Your task to perform on an android device: toggle sleep mode Image 0: 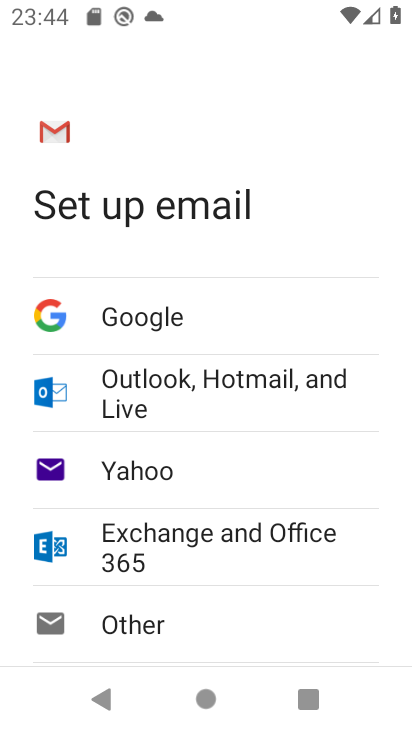
Step 0: press home button
Your task to perform on an android device: toggle sleep mode Image 1: 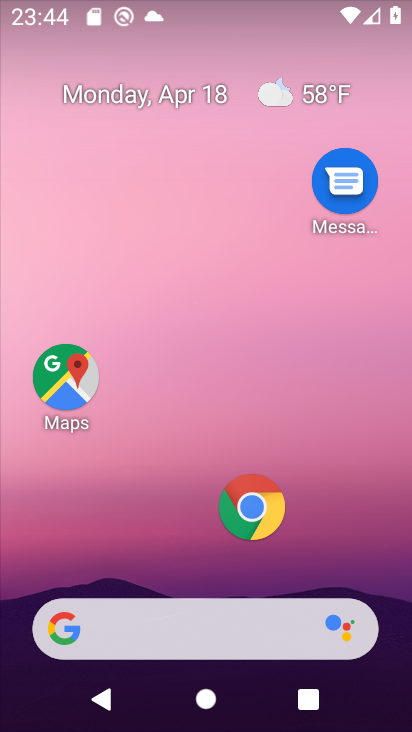
Step 1: drag from (201, 581) to (349, 0)
Your task to perform on an android device: toggle sleep mode Image 2: 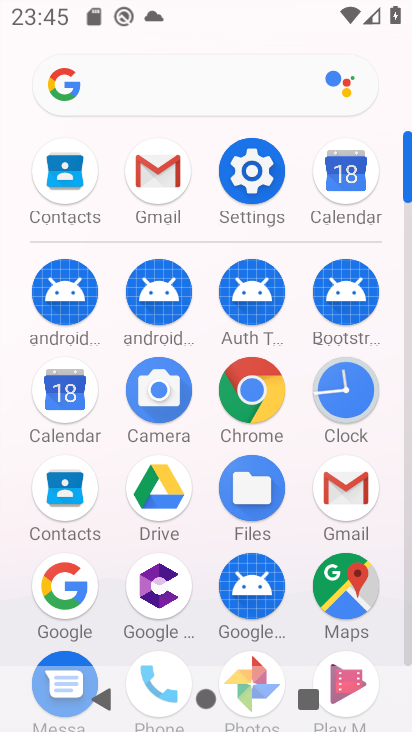
Step 2: click (272, 175)
Your task to perform on an android device: toggle sleep mode Image 3: 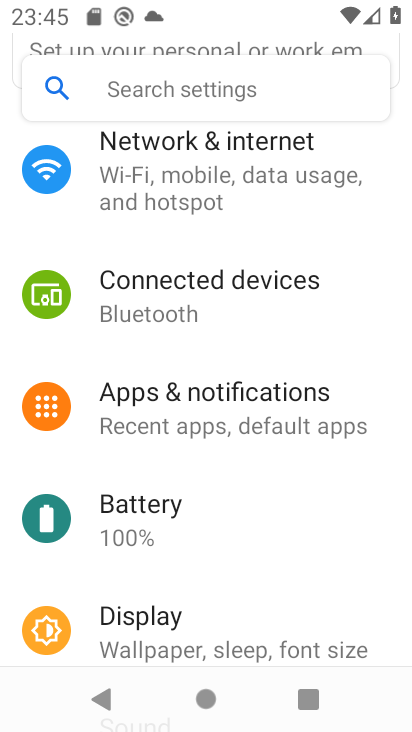
Step 3: type "sleep mode"
Your task to perform on an android device: toggle sleep mode Image 4: 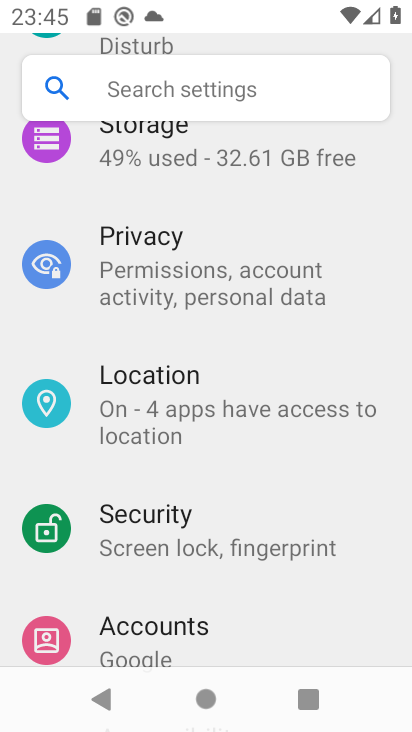
Step 4: click (171, 96)
Your task to perform on an android device: toggle sleep mode Image 5: 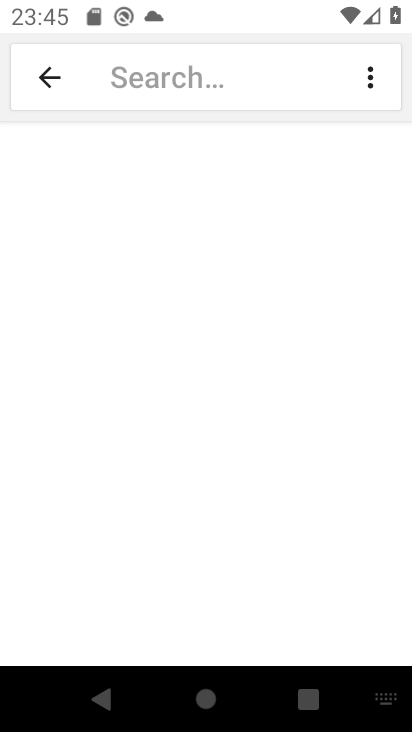
Step 5: type "sleep mode"
Your task to perform on an android device: toggle sleep mode Image 6: 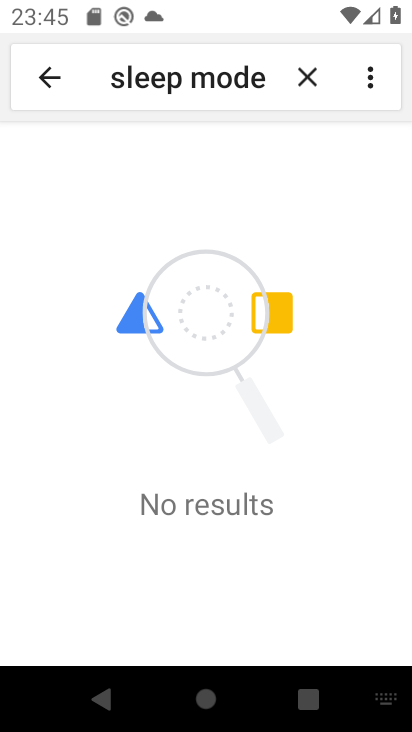
Step 6: task complete